Your task to perform on an android device: toggle wifi Image 0: 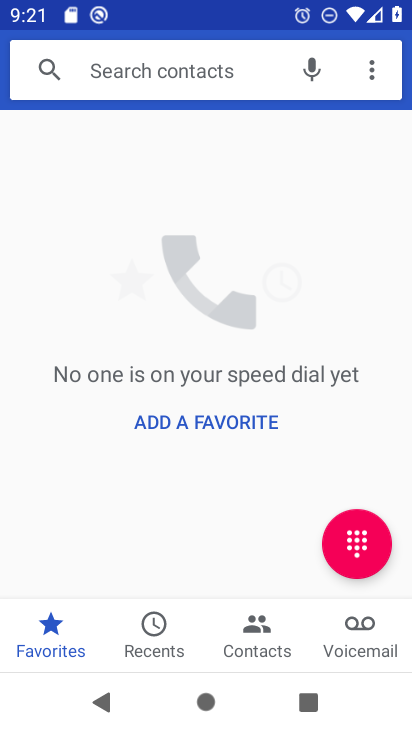
Step 0: drag from (294, 563) to (407, 314)
Your task to perform on an android device: toggle wifi Image 1: 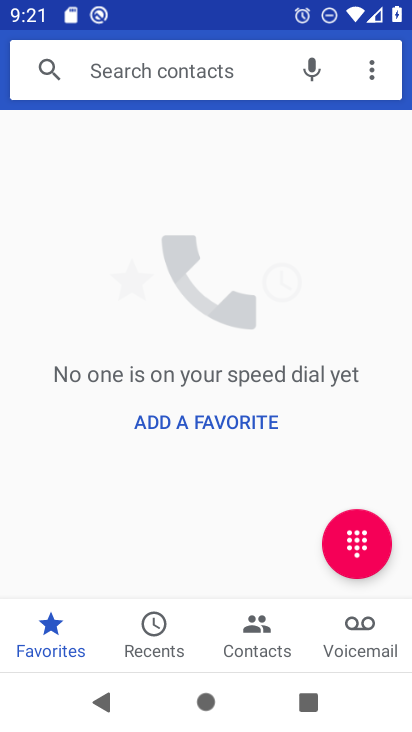
Step 1: press home button
Your task to perform on an android device: toggle wifi Image 2: 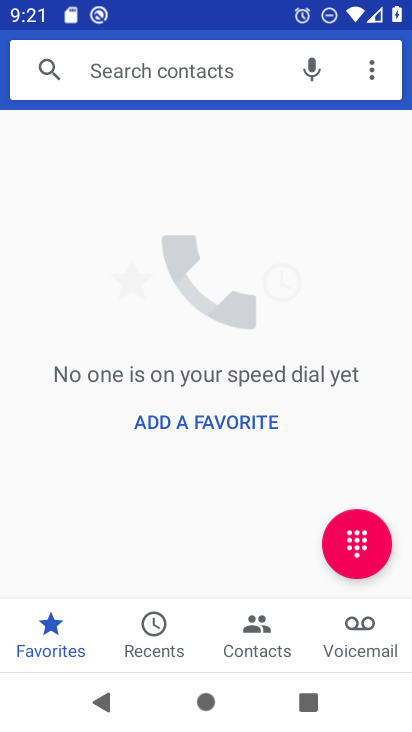
Step 2: drag from (407, 314) to (372, 303)
Your task to perform on an android device: toggle wifi Image 3: 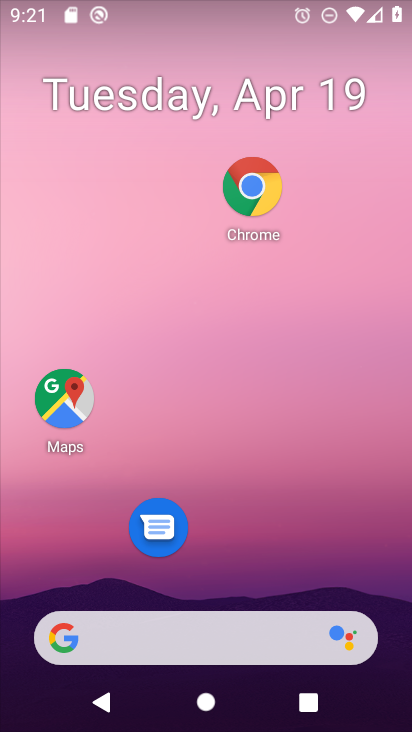
Step 3: drag from (272, 545) to (323, 183)
Your task to perform on an android device: toggle wifi Image 4: 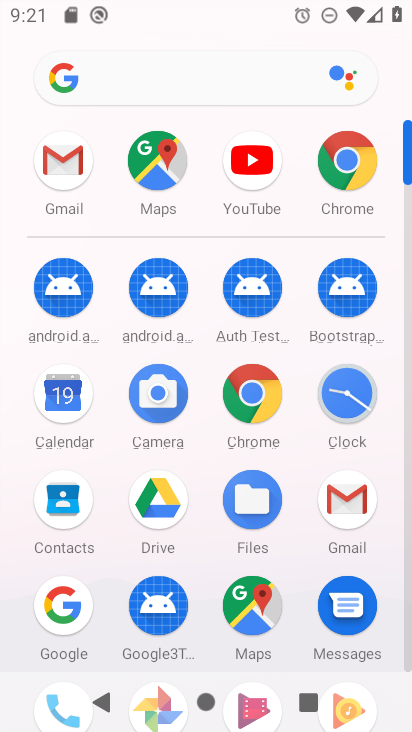
Step 4: drag from (188, 579) to (226, 272)
Your task to perform on an android device: toggle wifi Image 5: 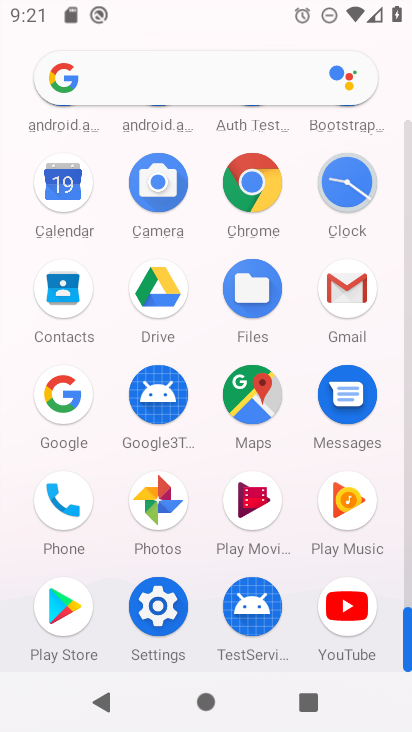
Step 5: click (160, 604)
Your task to perform on an android device: toggle wifi Image 6: 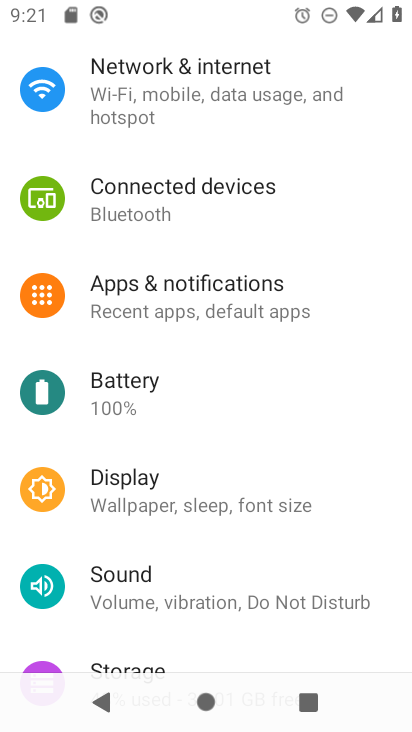
Step 6: click (224, 97)
Your task to perform on an android device: toggle wifi Image 7: 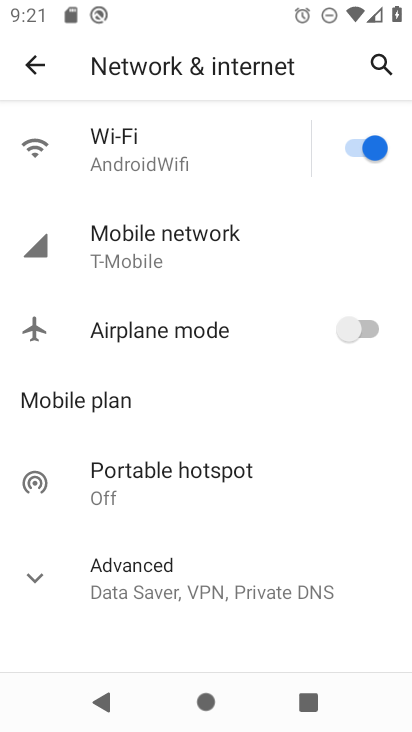
Step 7: click (184, 150)
Your task to perform on an android device: toggle wifi Image 8: 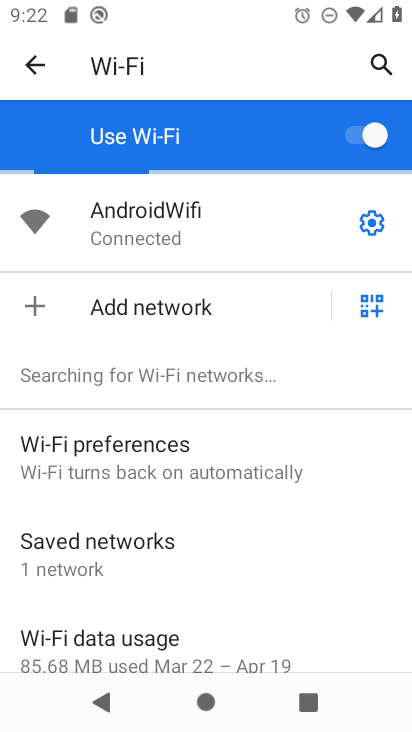
Step 8: task complete